Your task to perform on an android device: install app "Facebook Lite" Image 0: 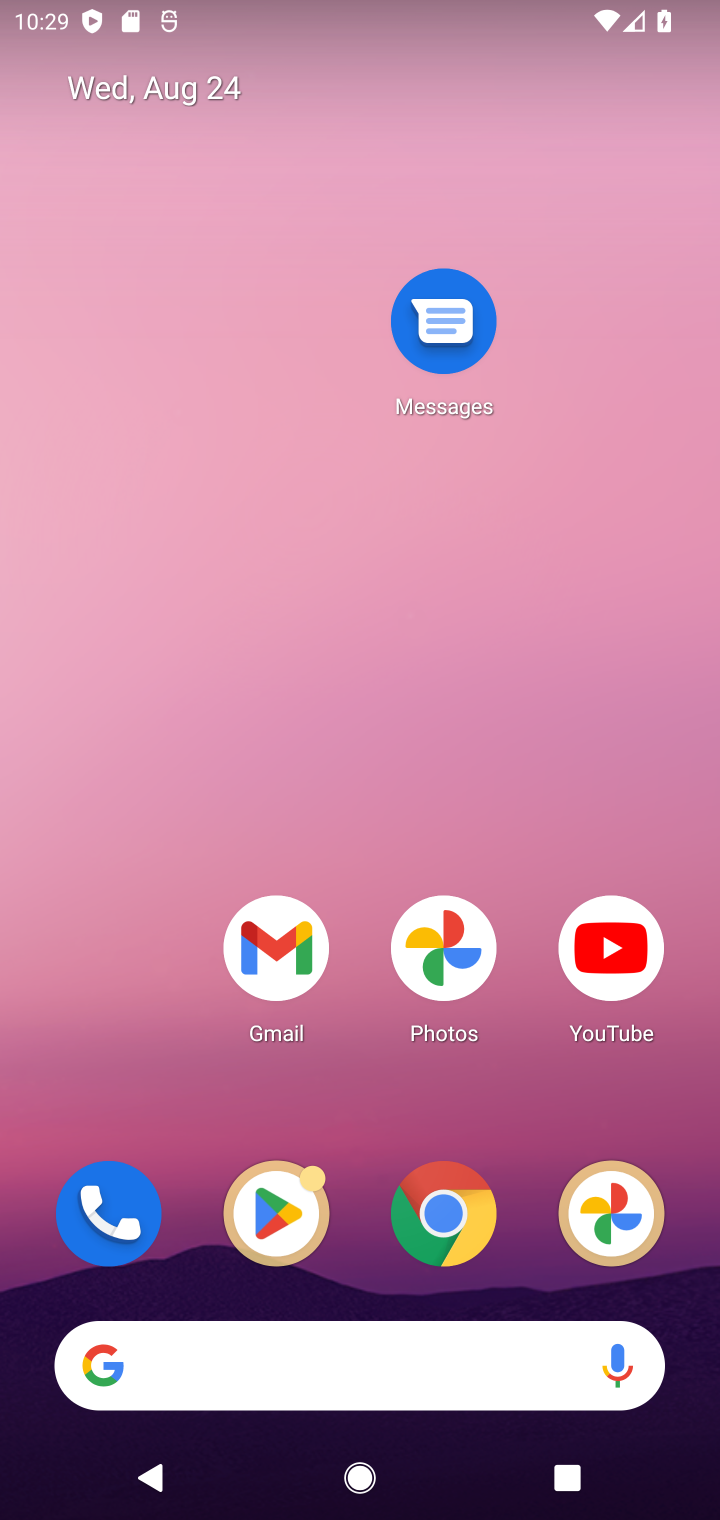
Step 0: click (280, 1214)
Your task to perform on an android device: install app "Facebook Lite" Image 1: 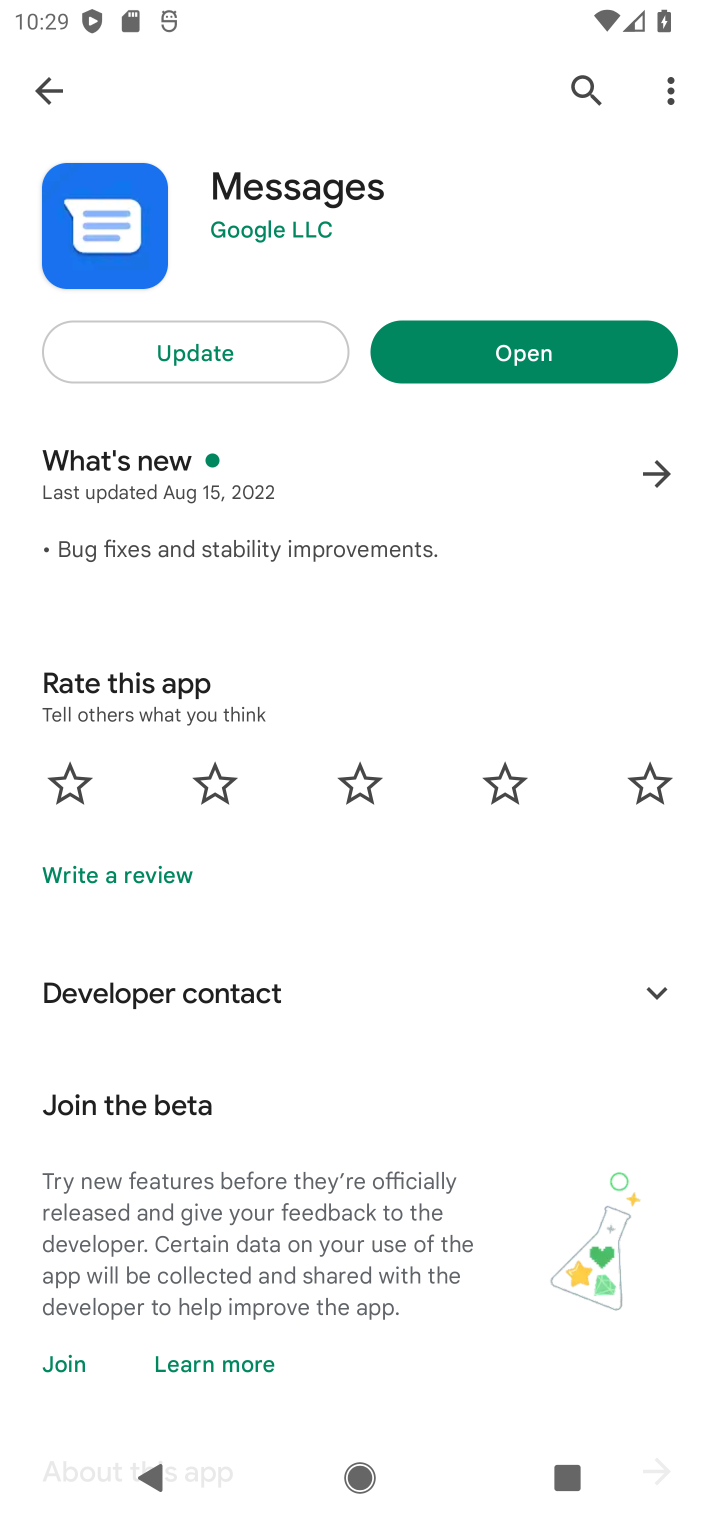
Step 1: click (54, 71)
Your task to perform on an android device: install app "Facebook Lite" Image 2: 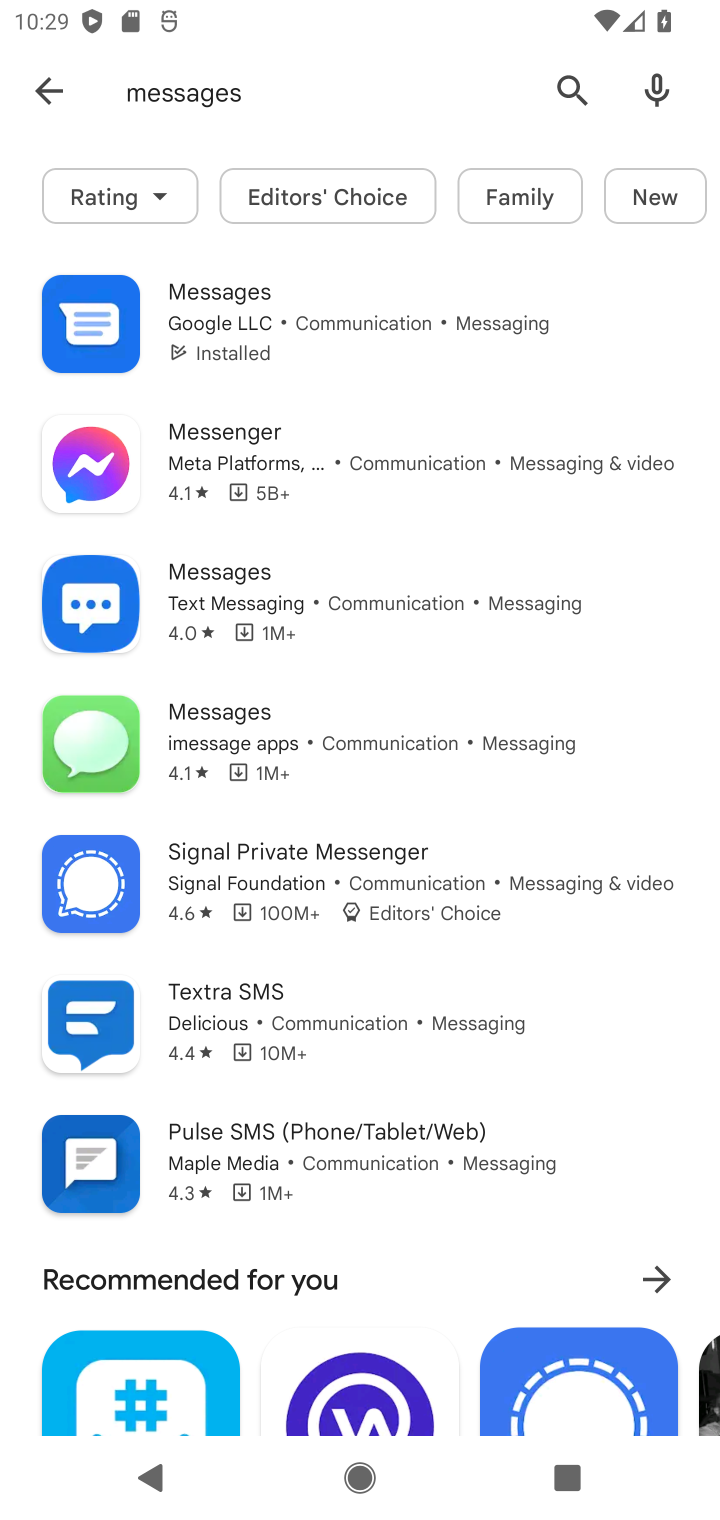
Step 2: click (174, 90)
Your task to perform on an android device: install app "Facebook Lite" Image 3: 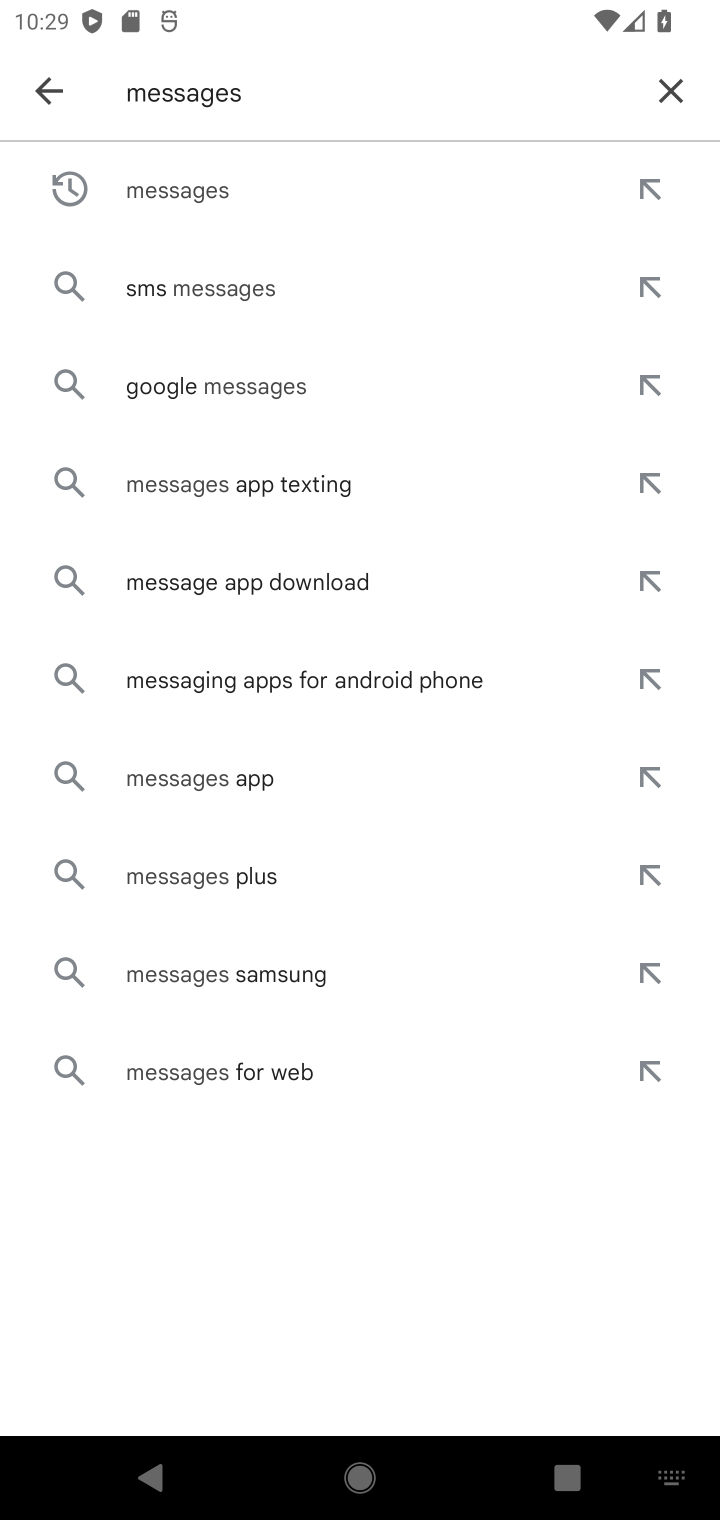
Step 3: click (672, 83)
Your task to perform on an android device: install app "Facebook Lite" Image 4: 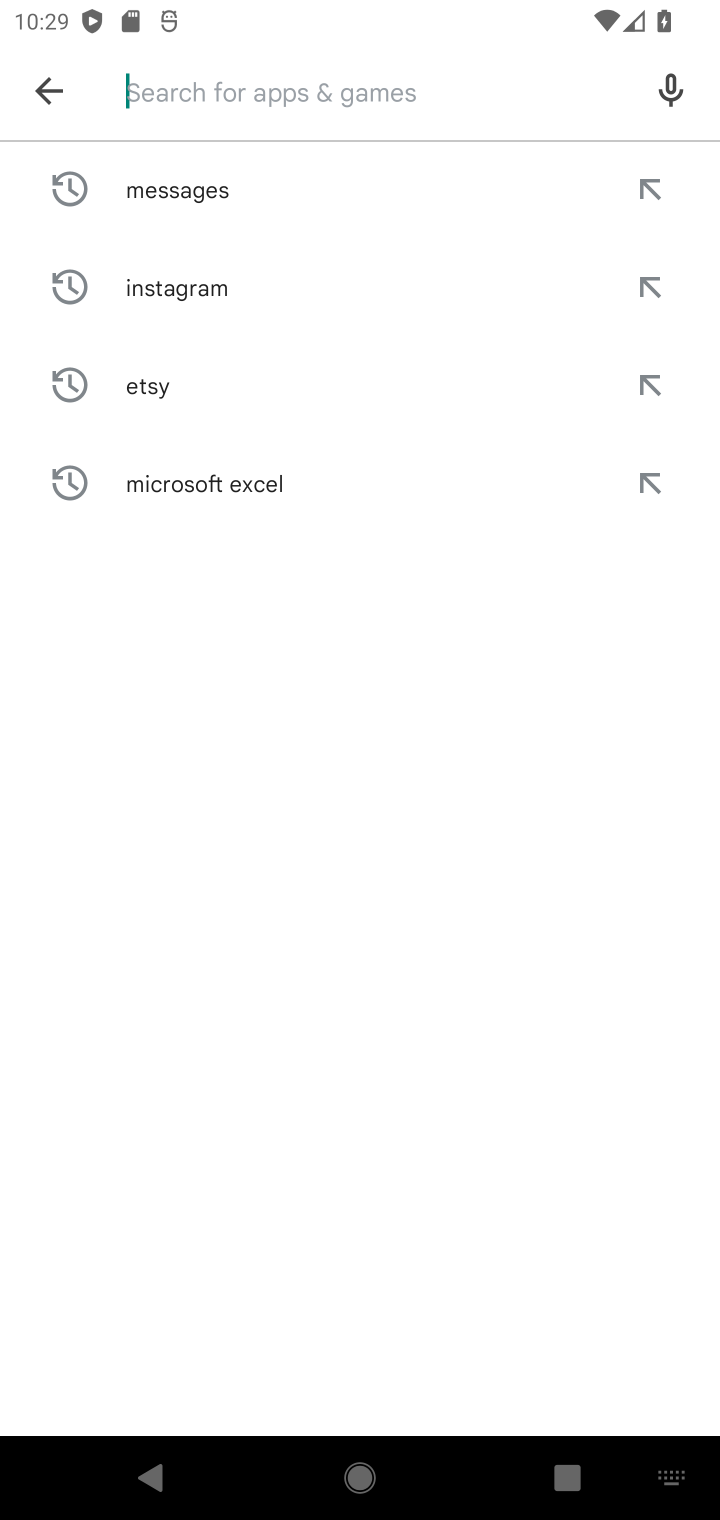
Step 4: type "facebook lite"
Your task to perform on an android device: install app "Facebook Lite" Image 5: 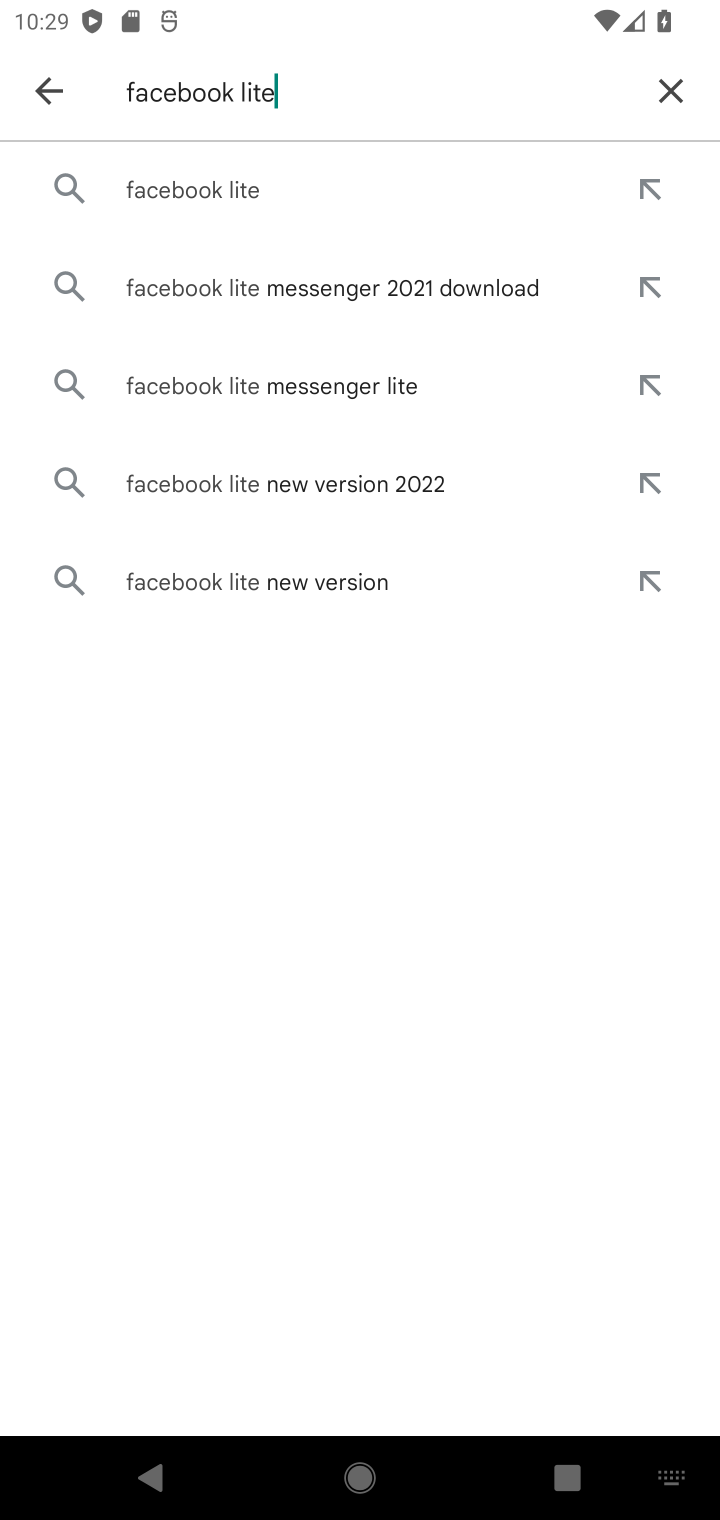
Step 5: click (284, 194)
Your task to perform on an android device: install app "Facebook Lite" Image 6: 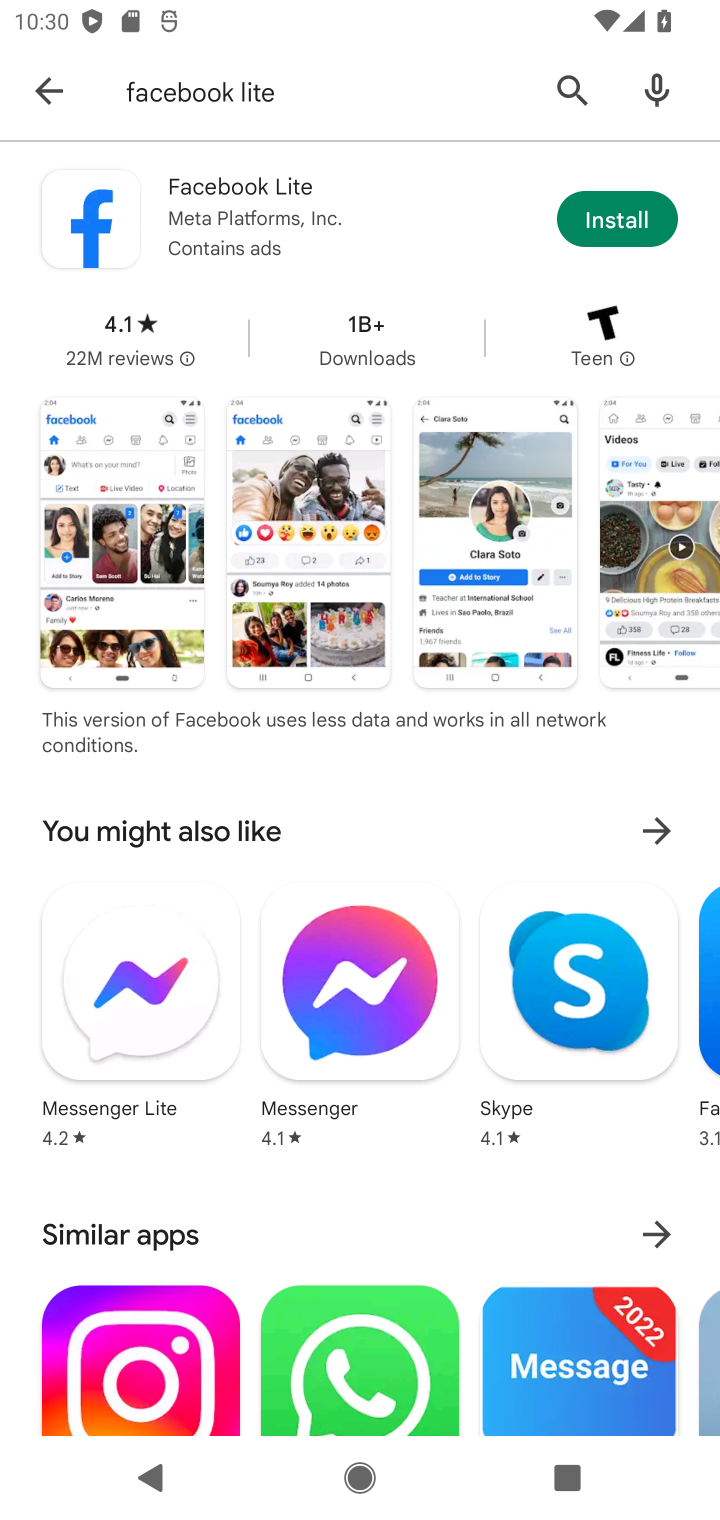
Step 6: click (642, 200)
Your task to perform on an android device: install app "Facebook Lite" Image 7: 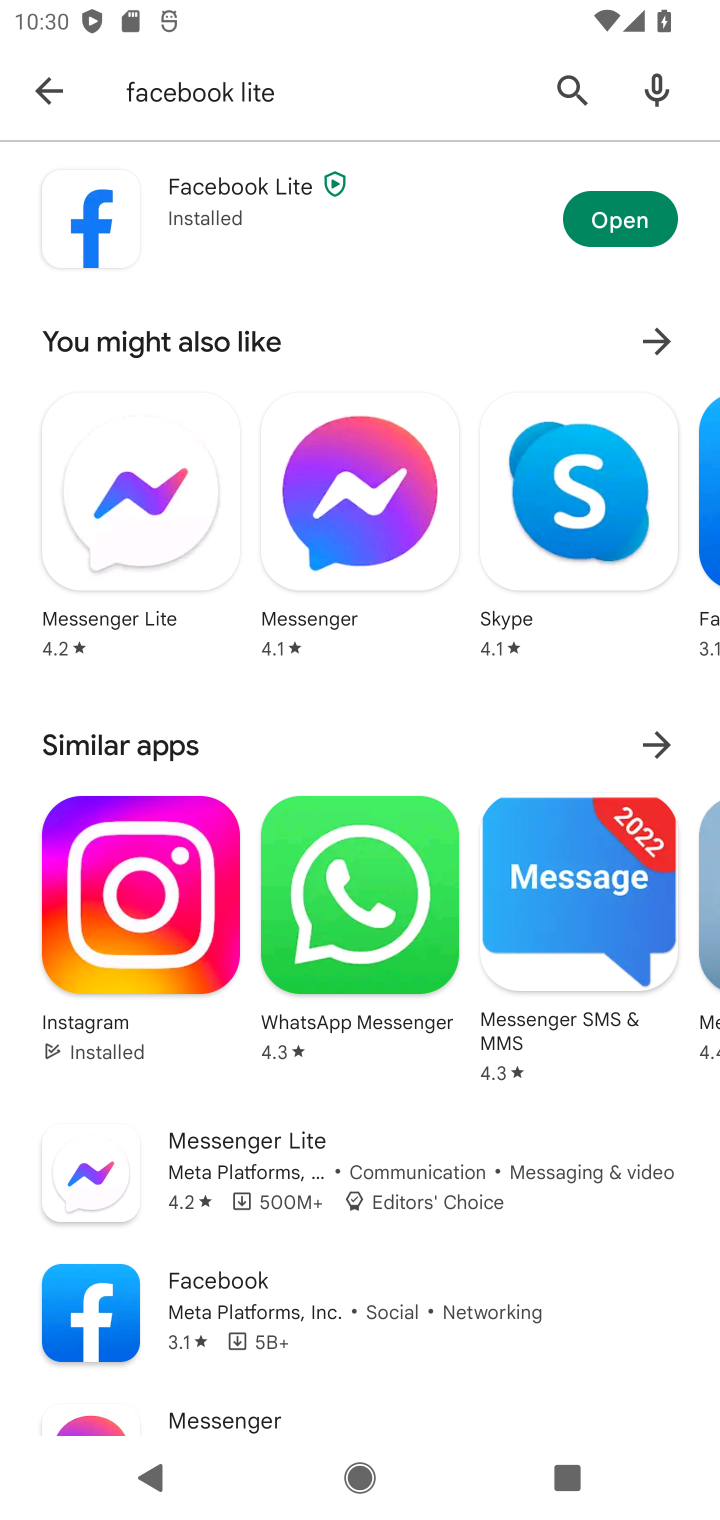
Step 7: task complete